Your task to perform on an android device: Open Google Chrome Image 0: 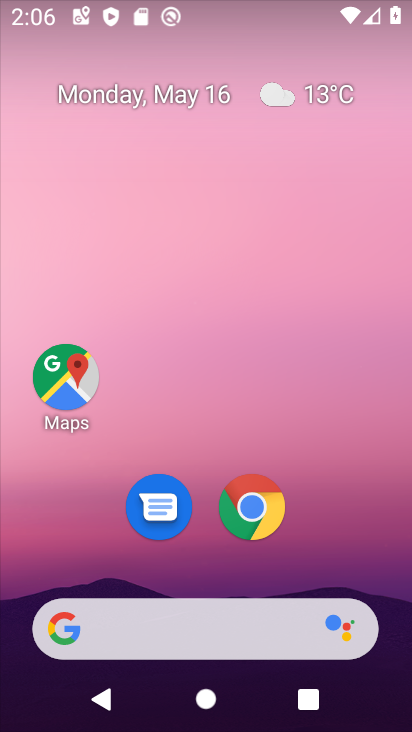
Step 0: drag from (366, 561) to (367, 152)
Your task to perform on an android device: Open Google Chrome Image 1: 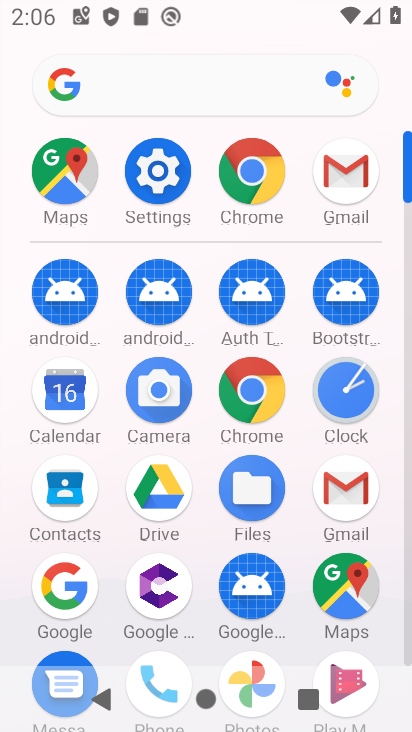
Step 1: click (269, 400)
Your task to perform on an android device: Open Google Chrome Image 2: 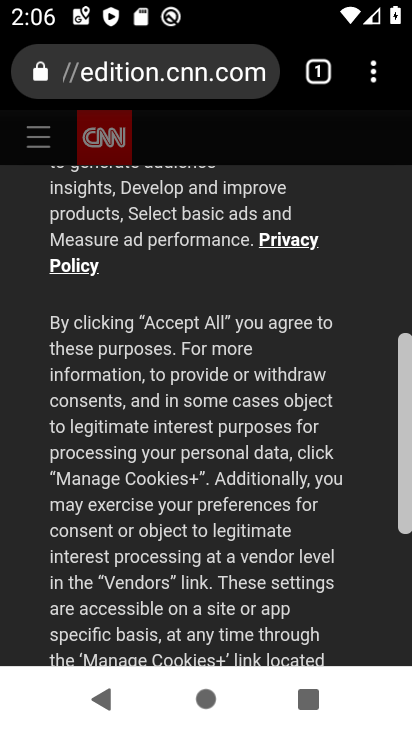
Step 2: task complete